Your task to perform on an android device: turn off airplane mode Image 0: 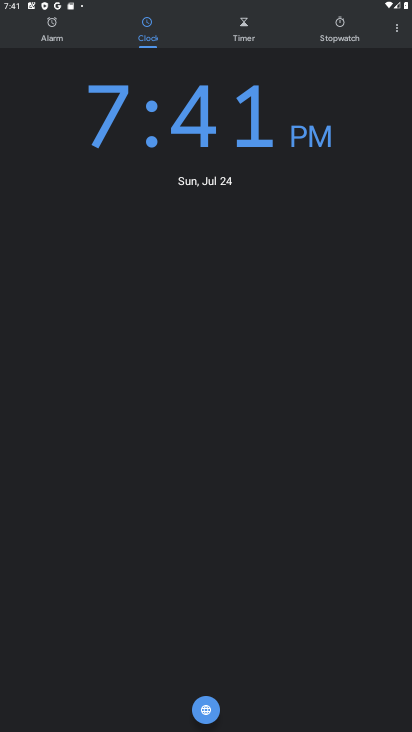
Step 0: press home button
Your task to perform on an android device: turn off airplane mode Image 1: 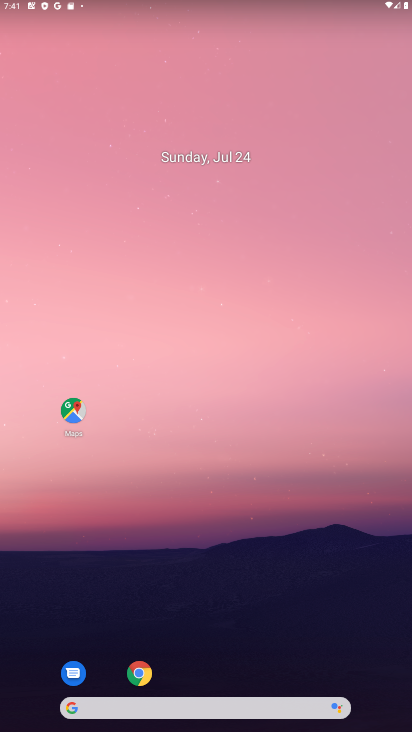
Step 1: drag from (35, 697) to (187, 220)
Your task to perform on an android device: turn off airplane mode Image 2: 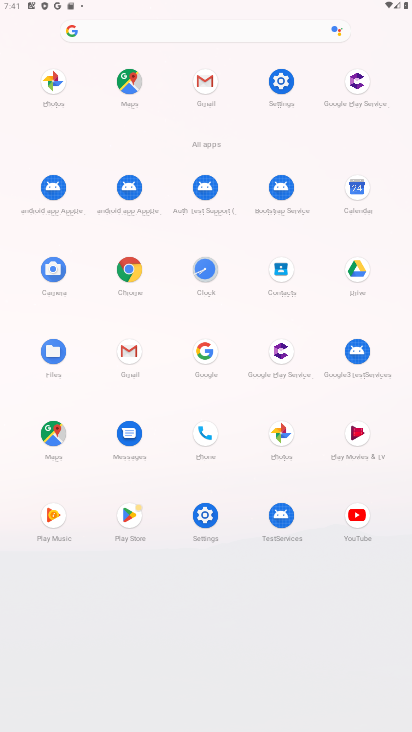
Step 2: click (211, 523)
Your task to perform on an android device: turn off airplane mode Image 3: 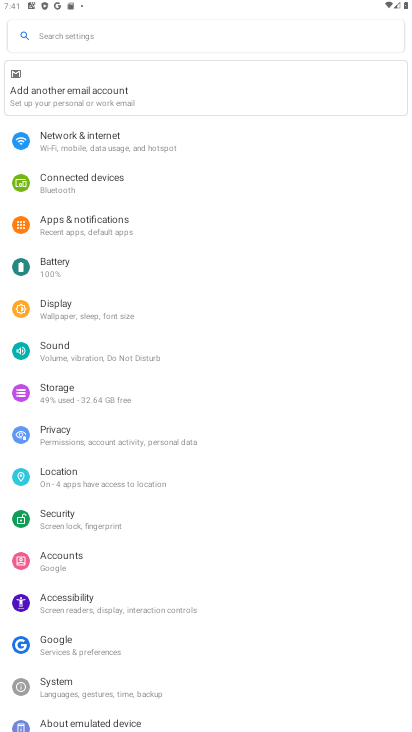
Step 3: click (86, 142)
Your task to perform on an android device: turn off airplane mode Image 4: 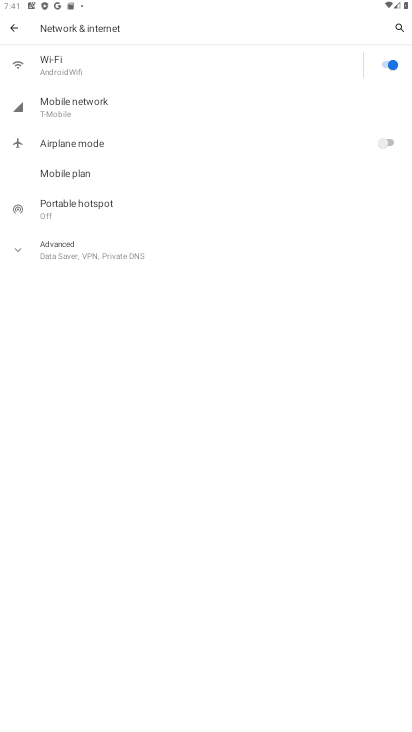
Step 4: click (391, 140)
Your task to perform on an android device: turn off airplane mode Image 5: 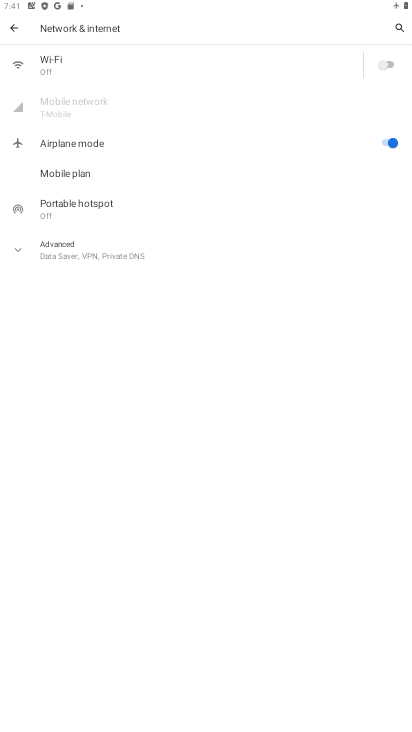
Step 5: click (398, 142)
Your task to perform on an android device: turn off airplane mode Image 6: 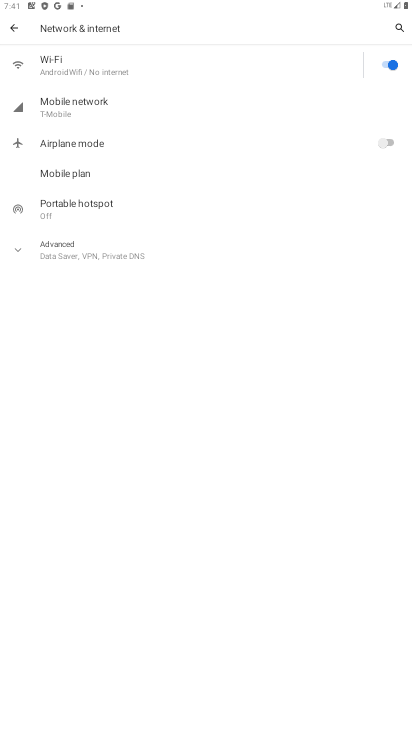
Step 6: task complete